Your task to perform on an android device: Open maps Image 0: 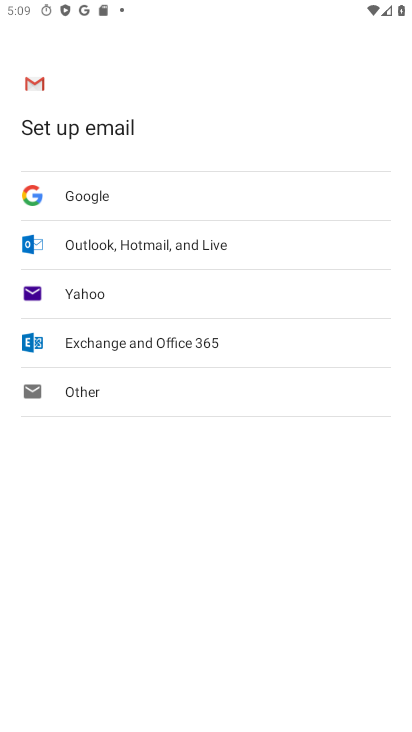
Step 0: press home button
Your task to perform on an android device: Open maps Image 1: 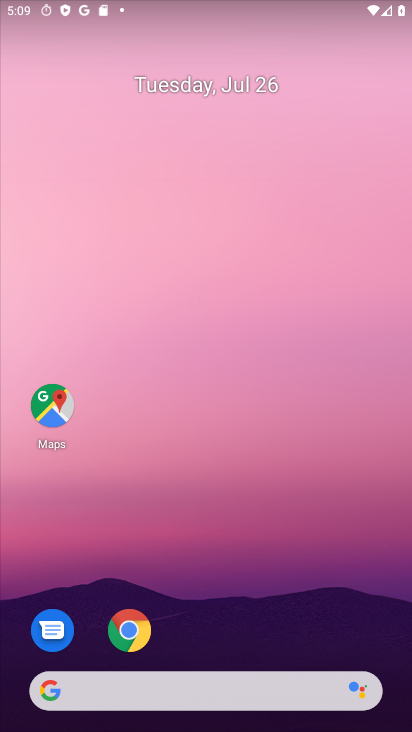
Step 1: drag from (252, 631) to (213, 69)
Your task to perform on an android device: Open maps Image 2: 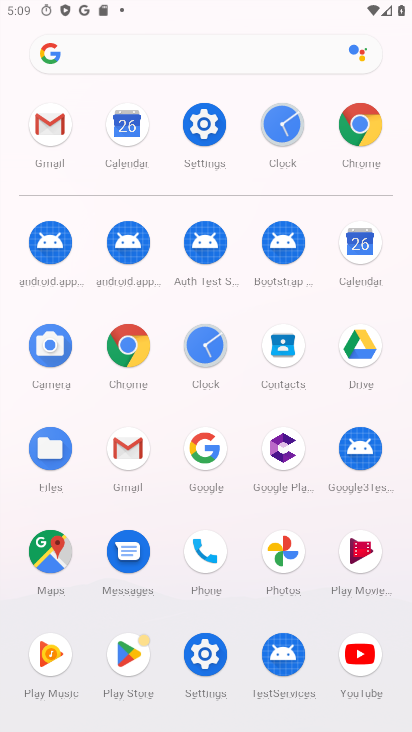
Step 2: click (42, 560)
Your task to perform on an android device: Open maps Image 3: 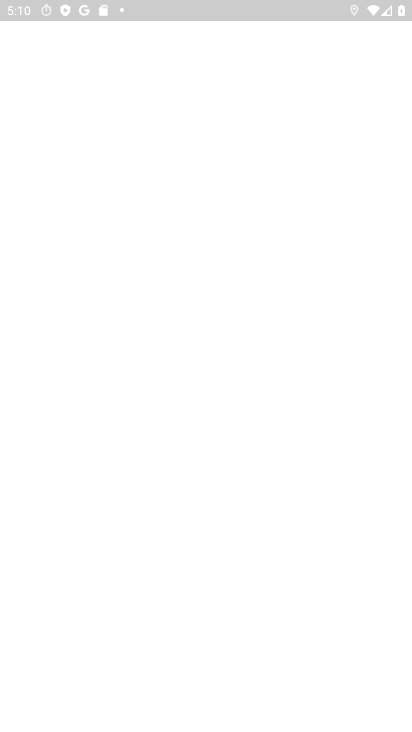
Step 3: task complete